Your task to perform on an android device: refresh tabs in the chrome app Image 0: 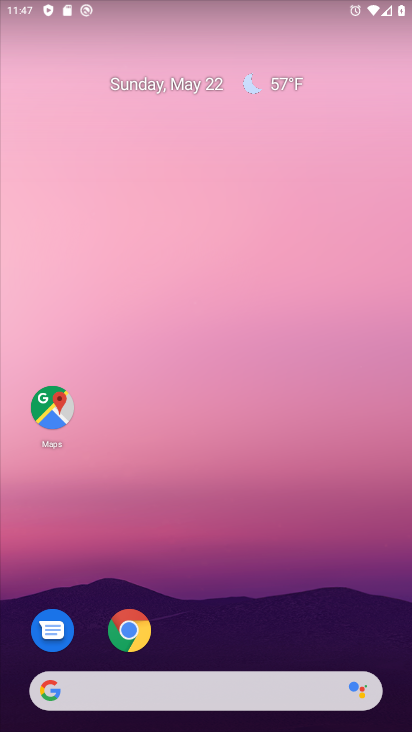
Step 0: click (139, 629)
Your task to perform on an android device: refresh tabs in the chrome app Image 1: 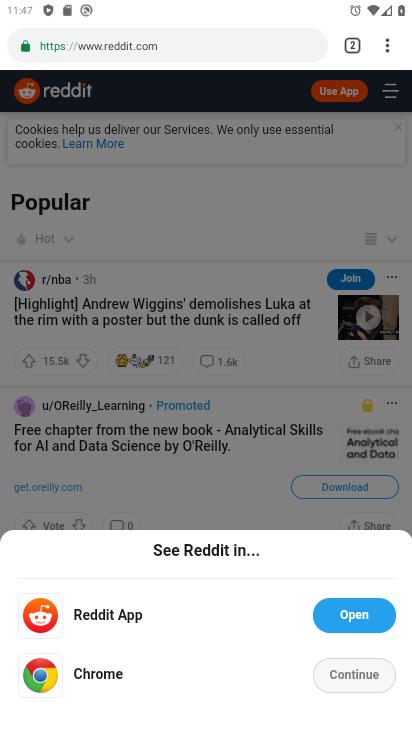
Step 1: click (387, 55)
Your task to perform on an android device: refresh tabs in the chrome app Image 2: 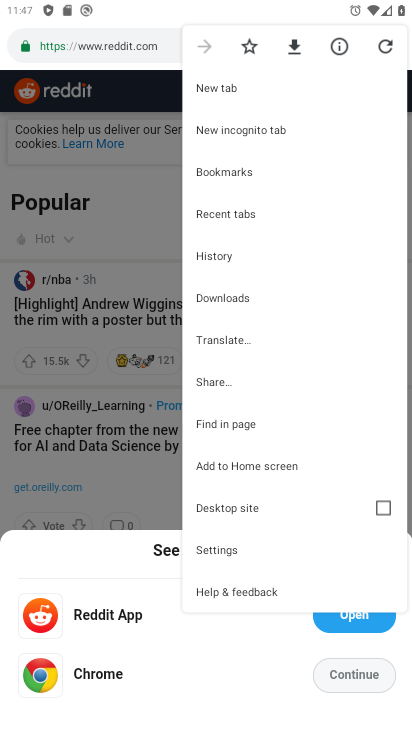
Step 2: click (386, 51)
Your task to perform on an android device: refresh tabs in the chrome app Image 3: 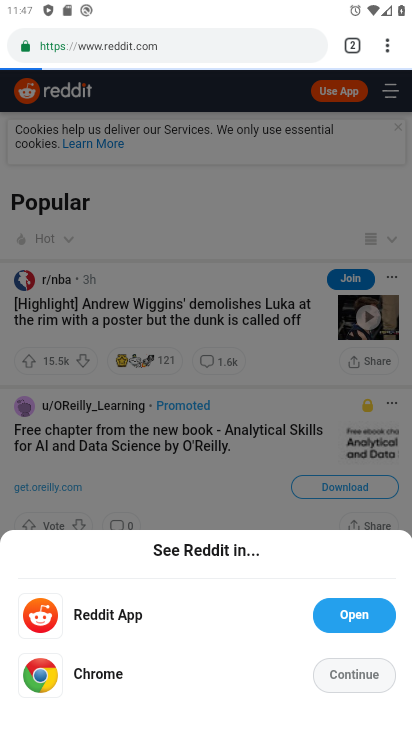
Step 3: task complete